Your task to perform on an android device: turn off notifications in google photos Image 0: 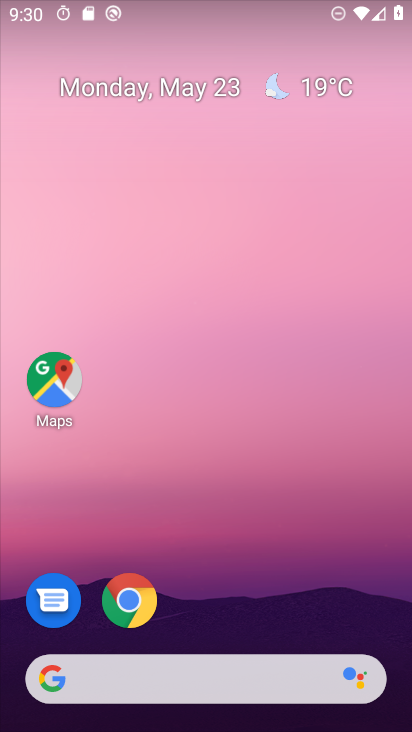
Step 0: press home button
Your task to perform on an android device: turn off notifications in google photos Image 1: 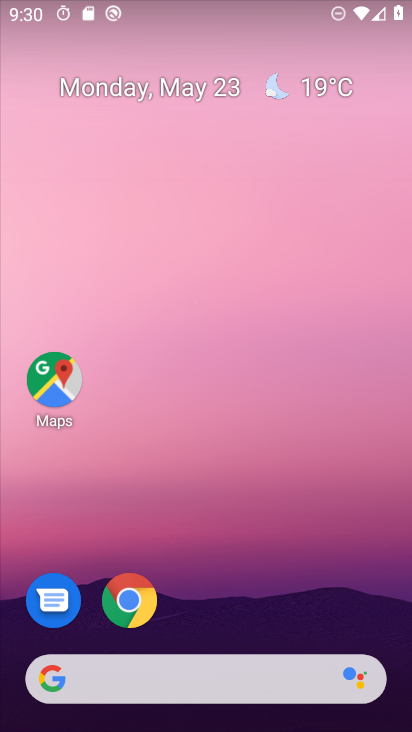
Step 1: drag from (56, 533) to (277, 41)
Your task to perform on an android device: turn off notifications in google photos Image 2: 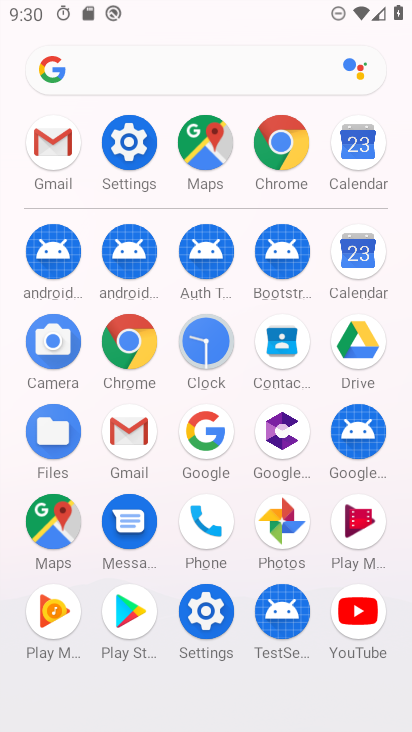
Step 2: click (273, 523)
Your task to perform on an android device: turn off notifications in google photos Image 3: 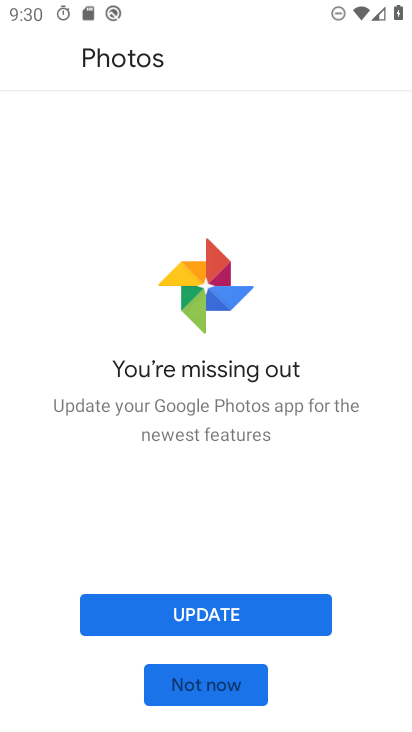
Step 3: drag from (242, 691) to (174, 691)
Your task to perform on an android device: turn off notifications in google photos Image 4: 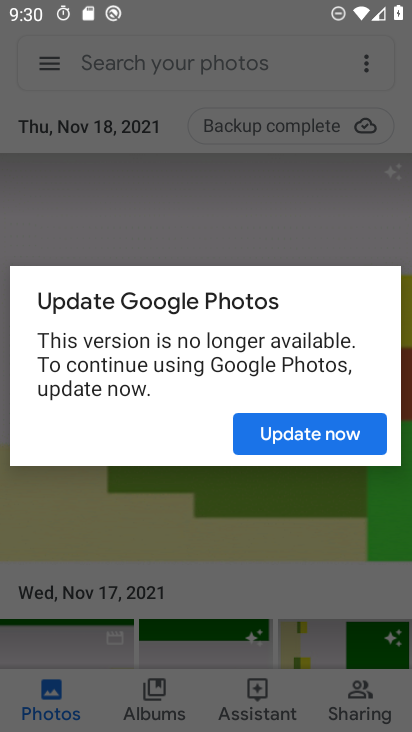
Step 4: click (355, 445)
Your task to perform on an android device: turn off notifications in google photos Image 5: 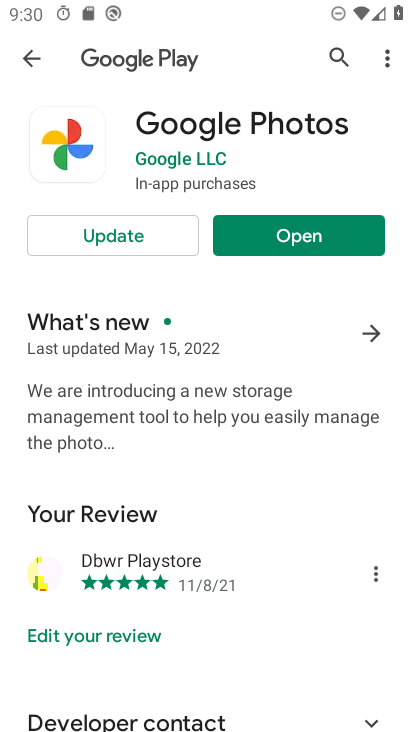
Step 5: click (247, 240)
Your task to perform on an android device: turn off notifications in google photos Image 6: 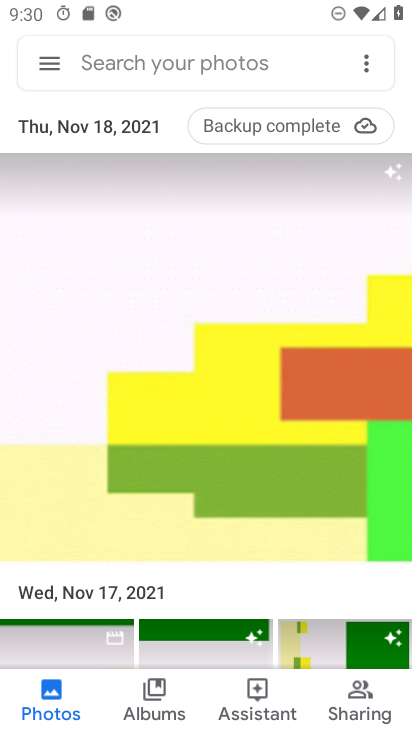
Step 6: click (55, 65)
Your task to perform on an android device: turn off notifications in google photos Image 7: 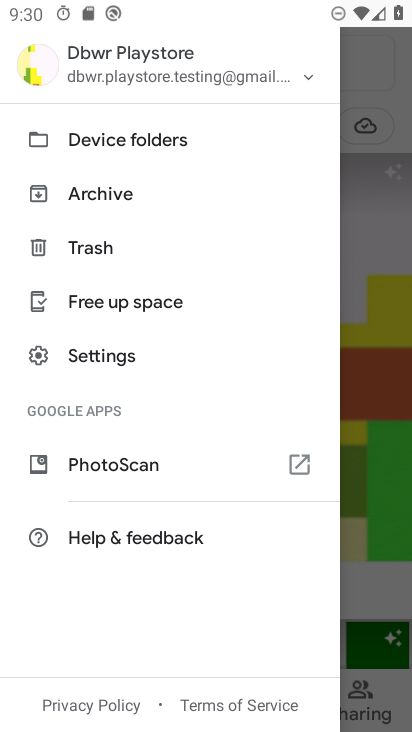
Step 7: click (122, 354)
Your task to perform on an android device: turn off notifications in google photos Image 8: 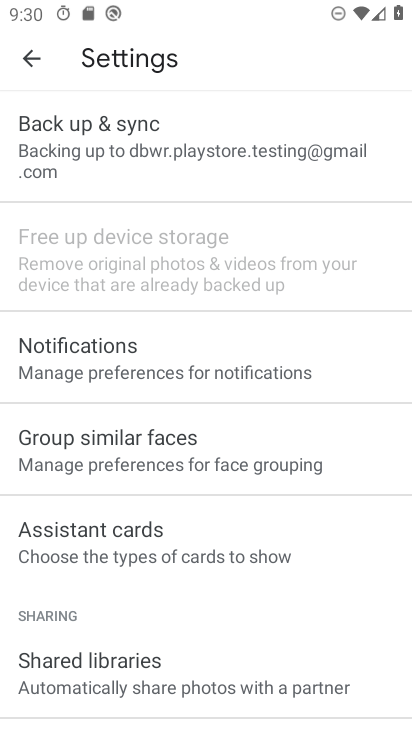
Step 8: click (122, 354)
Your task to perform on an android device: turn off notifications in google photos Image 9: 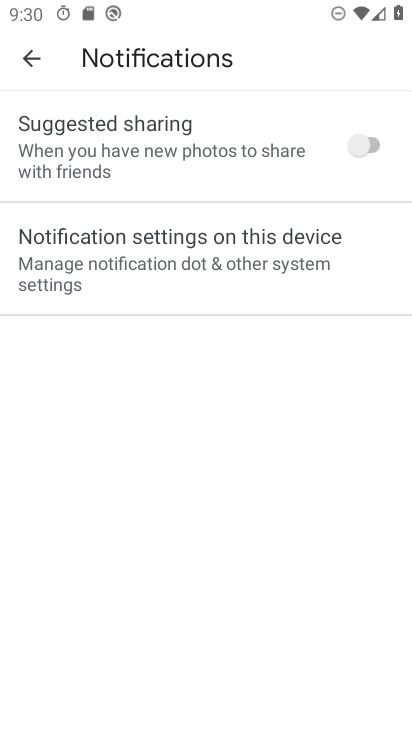
Step 9: click (300, 272)
Your task to perform on an android device: turn off notifications in google photos Image 10: 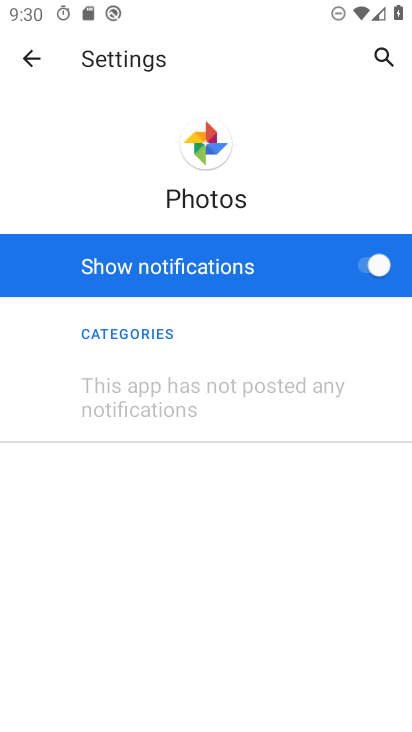
Step 10: click (385, 264)
Your task to perform on an android device: turn off notifications in google photos Image 11: 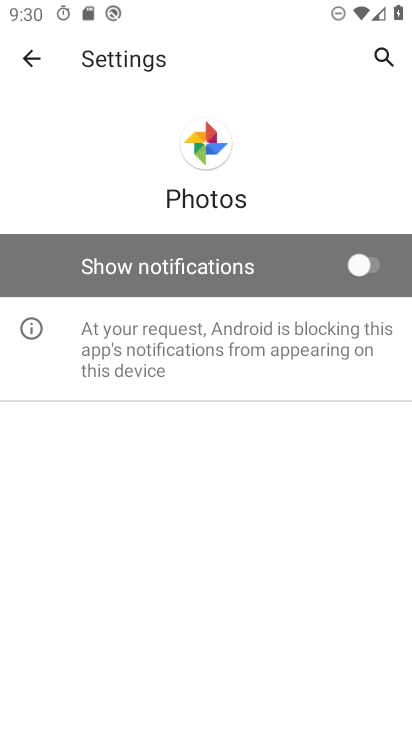
Step 11: task complete